Your task to perform on an android device: Go to location settings Image 0: 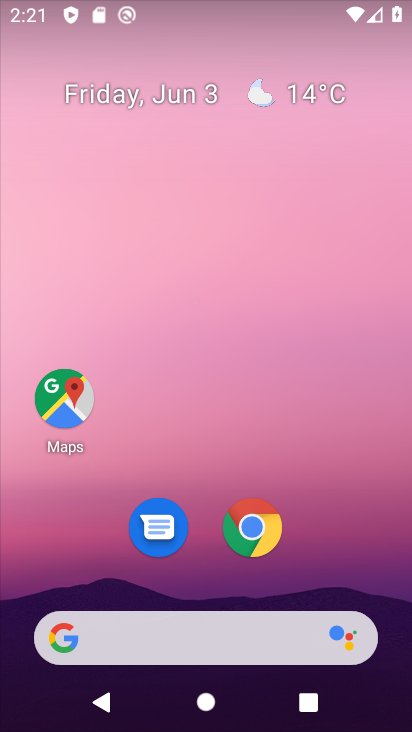
Step 0: drag from (211, 602) to (321, 10)
Your task to perform on an android device: Go to location settings Image 1: 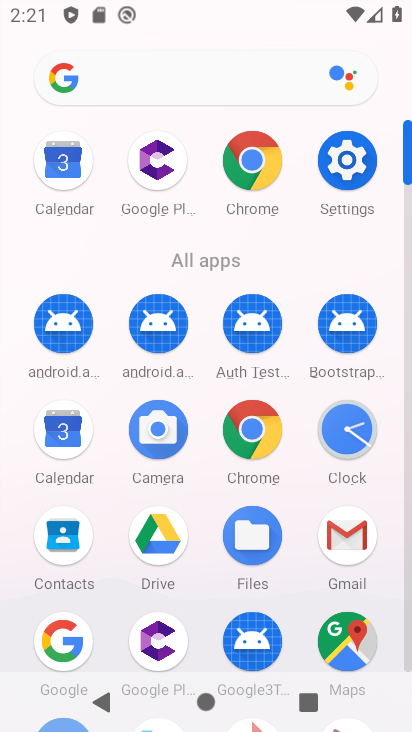
Step 1: click (349, 165)
Your task to perform on an android device: Go to location settings Image 2: 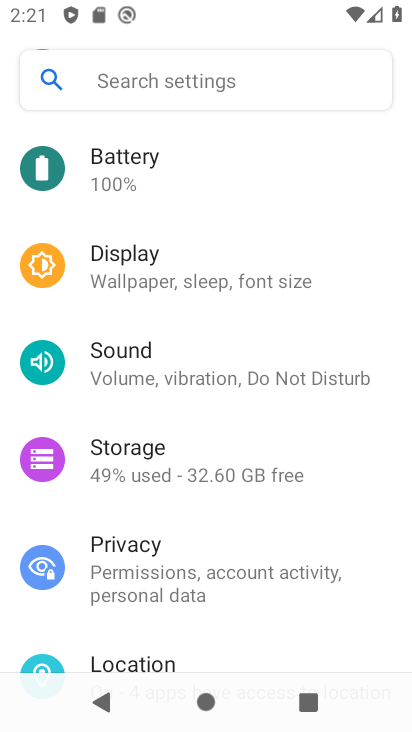
Step 2: click (175, 668)
Your task to perform on an android device: Go to location settings Image 3: 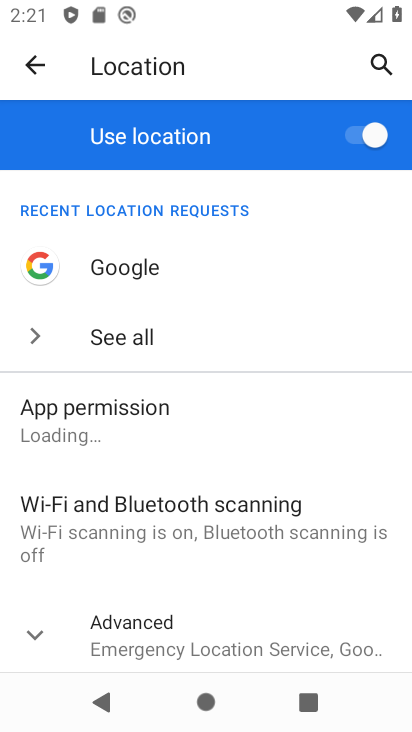
Step 3: click (201, 629)
Your task to perform on an android device: Go to location settings Image 4: 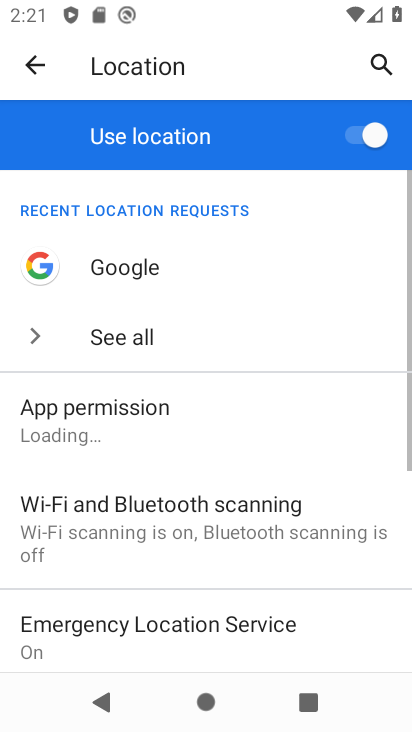
Step 4: task complete